Your task to perform on an android device: Open settings Image 0: 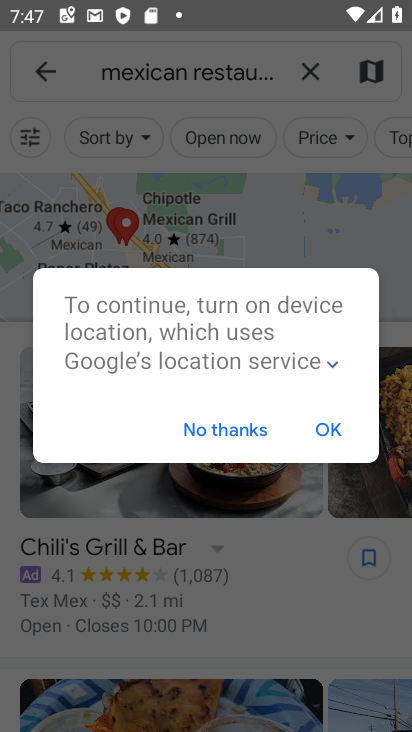
Step 0: press home button
Your task to perform on an android device: Open settings Image 1: 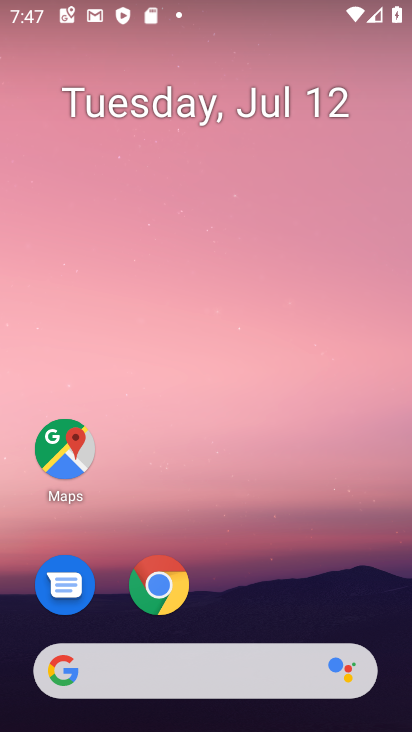
Step 1: drag from (282, 619) to (306, 52)
Your task to perform on an android device: Open settings Image 2: 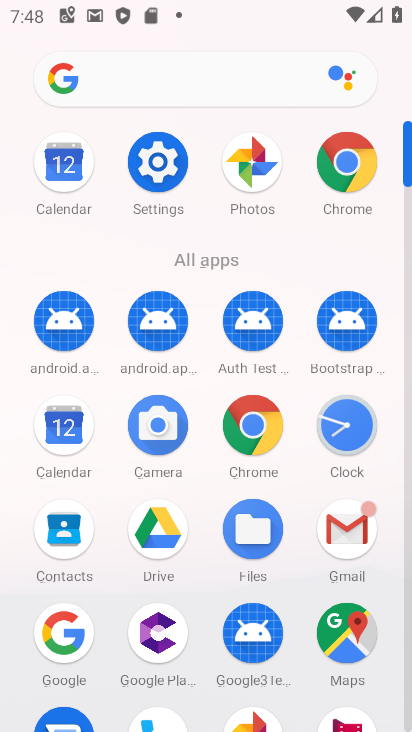
Step 2: click (167, 160)
Your task to perform on an android device: Open settings Image 3: 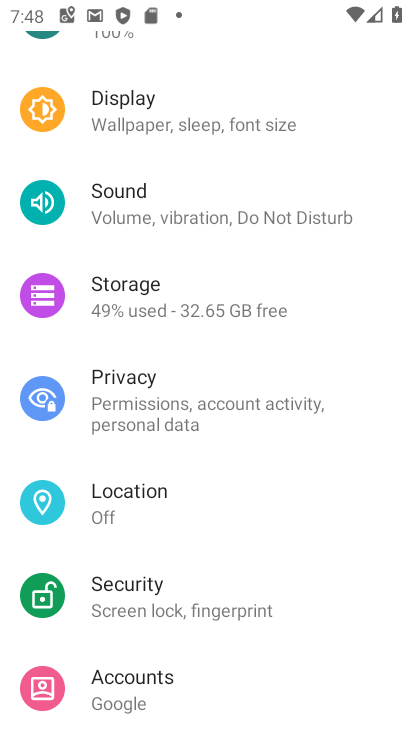
Step 3: task complete